Your task to perform on an android device: Play the last video I watched on Youtube Image 0: 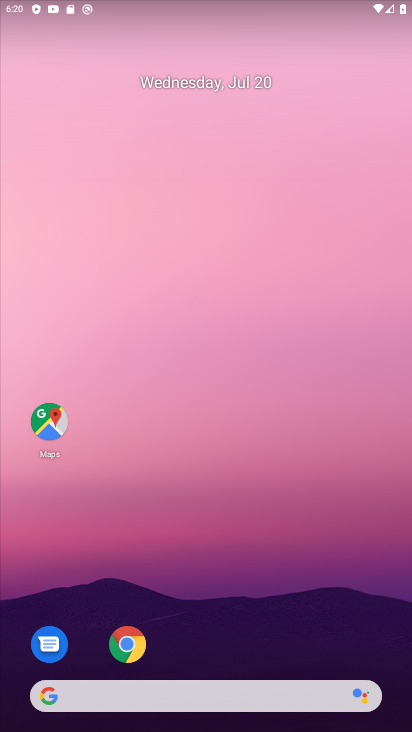
Step 0: drag from (192, 631) to (216, 39)
Your task to perform on an android device: Play the last video I watched on Youtube Image 1: 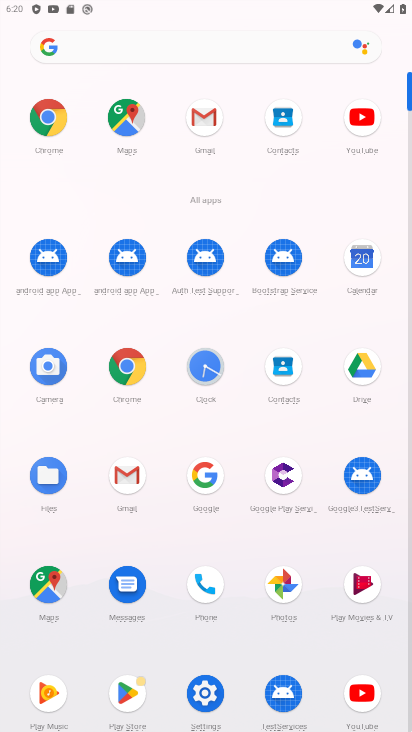
Step 1: click (362, 688)
Your task to perform on an android device: Play the last video I watched on Youtube Image 2: 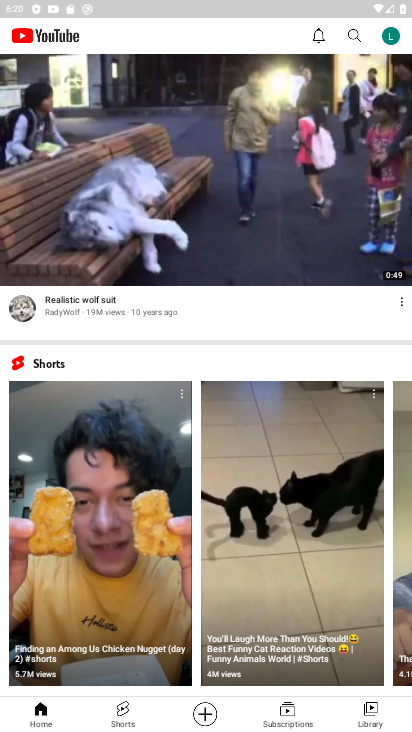
Step 2: click (372, 711)
Your task to perform on an android device: Play the last video I watched on Youtube Image 3: 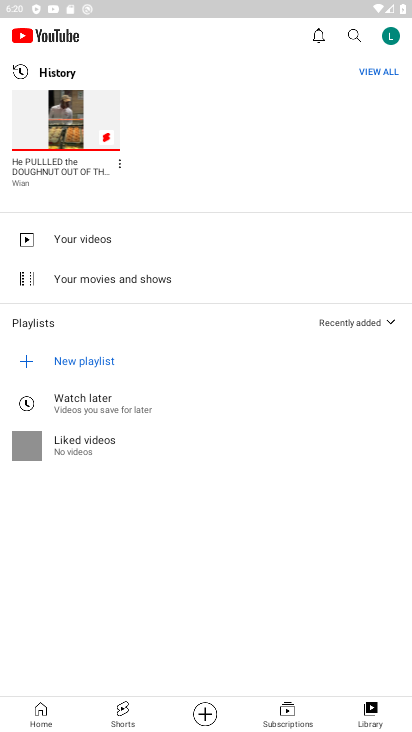
Step 3: click (40, 131)
Your task to perform on an android device: Play the last video I watched on Youtube Image 4: 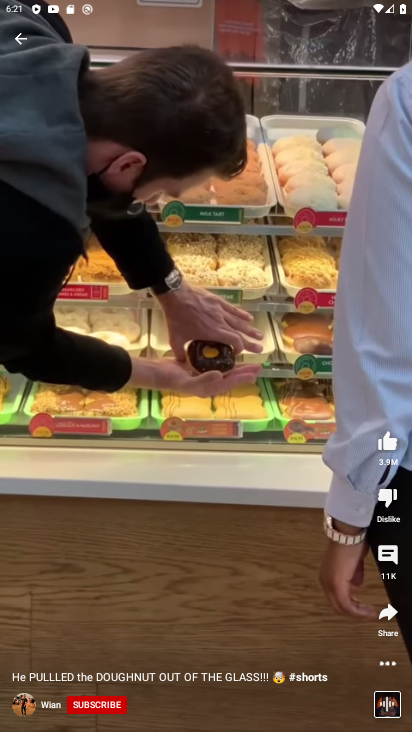
Step 4: task complete